Your task to perform on an android device: Open the phone app and click the voicemail tab. Image 0: 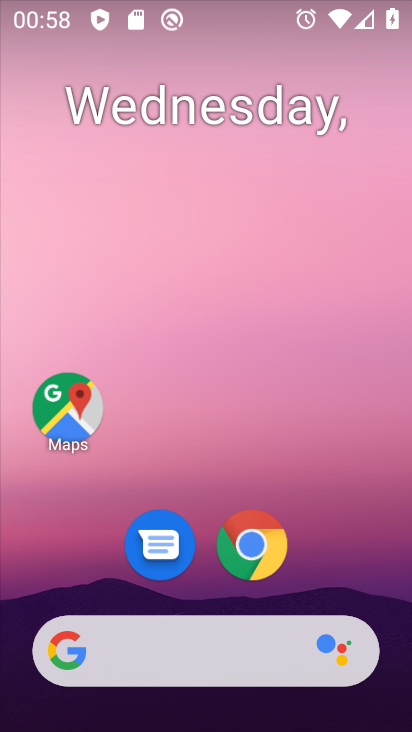
Step 0: drag from (335, 531) to (350, 159)
Your task to perform on an android device: Open the phone app and click the voicemail tab. Image 1: 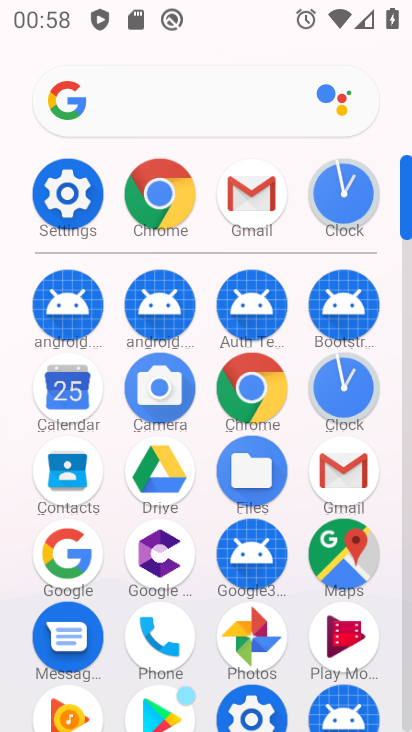
Step 1: click (374, 639)
Your task to perform on an android device: Open the phone app and click the voicemail tab. Image 2: 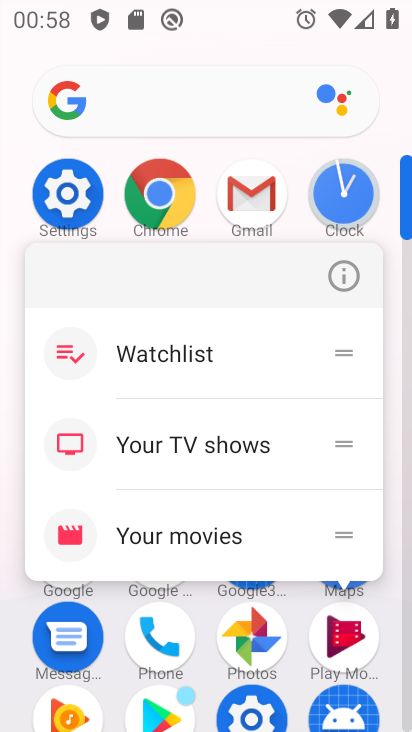
Step 2: click (373, 639)
Your task to perform on an android device: Open the phone app and click the voicemail tab. Image 3: 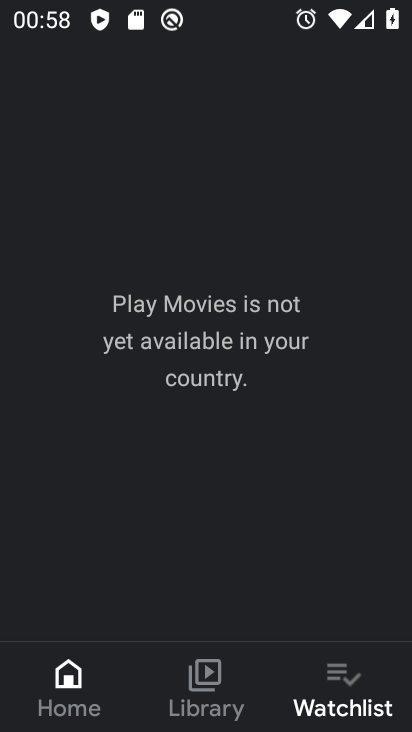
Step 3: click (350, 677)
Your task to perform on an android device: Open the phone app and click the voicemail tab. Image 4: 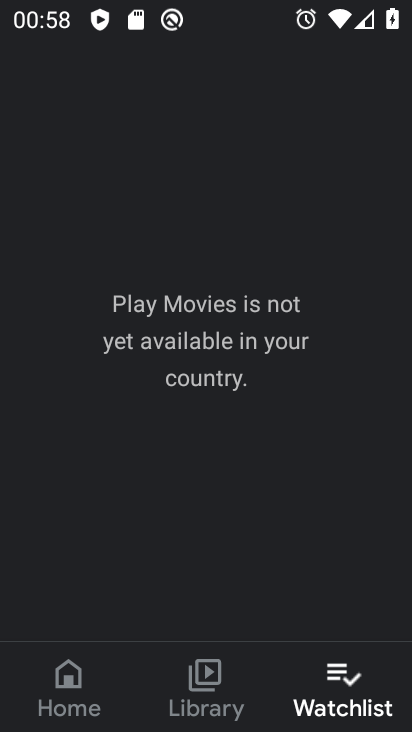
Step 4: task complete